Your task to perform on an android device: choose inbox layout in the gmail app Image 0: 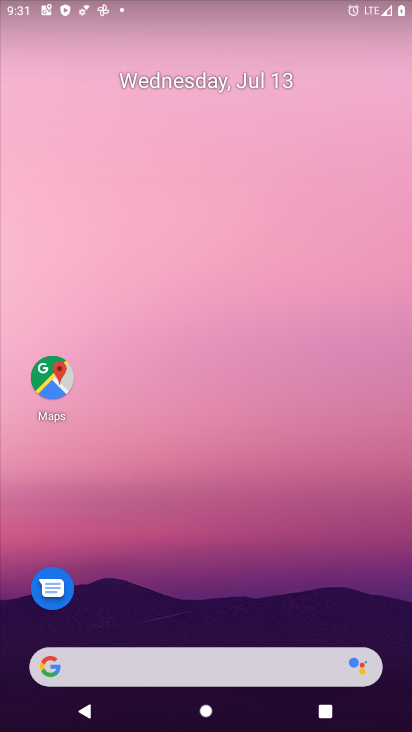
Step 0: drag from (260, 722) to (328, 463)
Your task to perform on an android device: choose inbox layout in the gmail app Image 1: 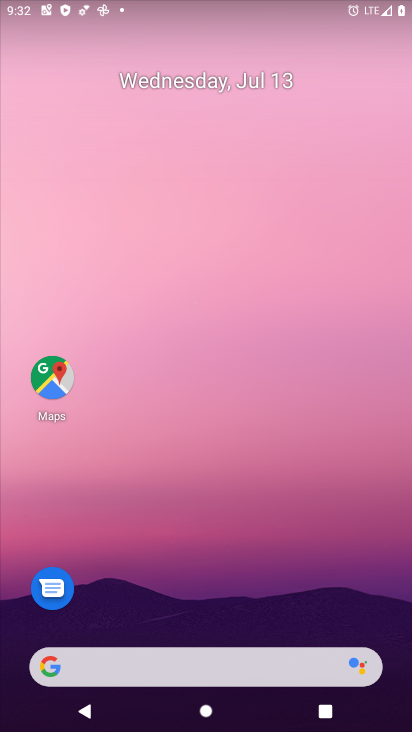
Step 1: drag from (286, 706) to (260, 17)
Your task to perform on an android device: choose inbox layout in the gmail app Image 2: 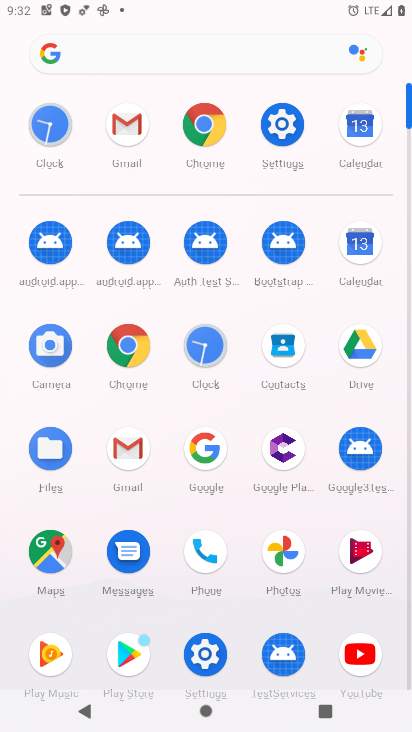
Step 2: click (133, 437)
Your task to perform on an android device: choose inbox layout in the gmail app Image 3: 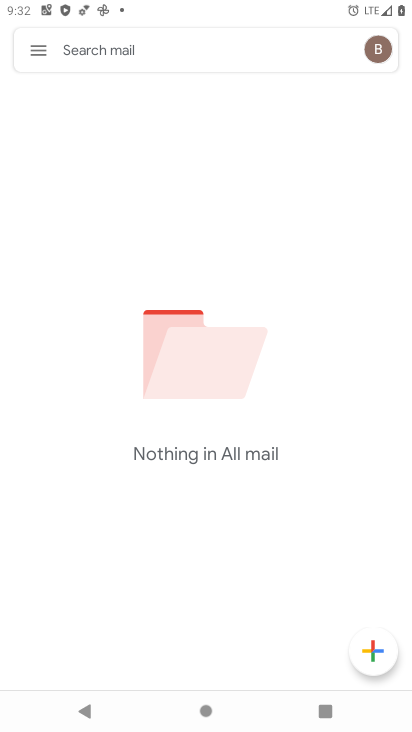
Step 3: click (36, 52)
Your task to perform on an android device: choose inbox layout in the gmail app Image 4: 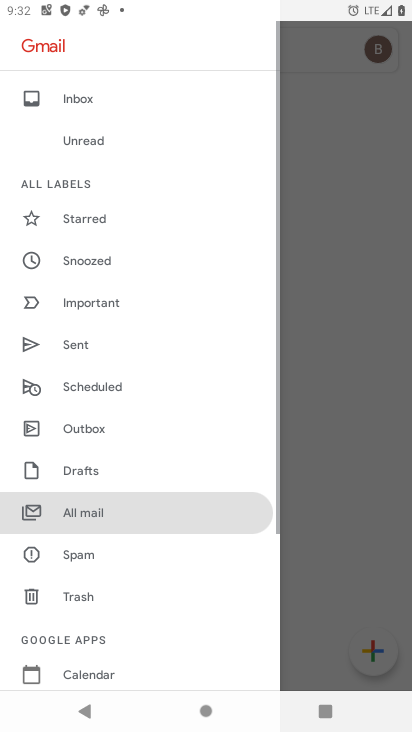
Step 4: drag from (122, 602) to (242, 0)
Your task to perform on an android device: choose inbox layout in the gmail app Image 5: 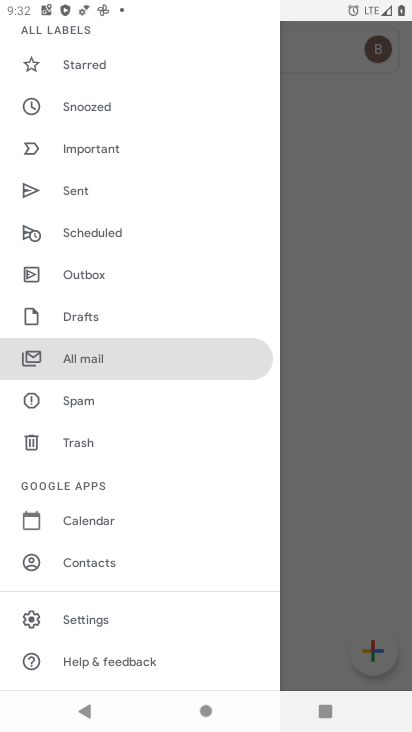
Step 5: click (110, 621)
Your task to perform on an android device: choose inbox layout in the gmail app Image 6: 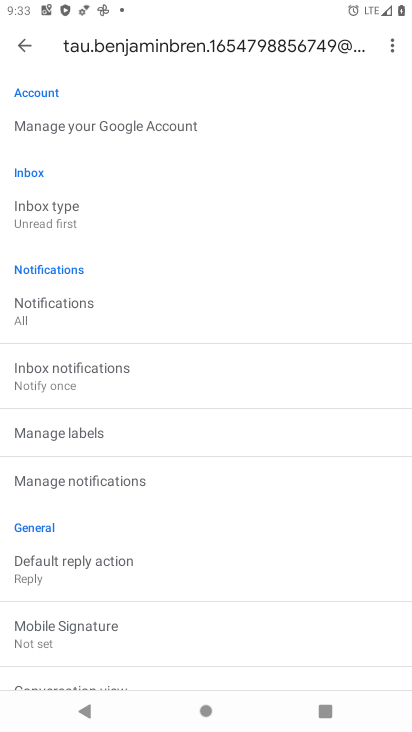
Step 6: click (58, 217)
Your task to perform on an android device: choose inbox layout in the gmail app Image 7: 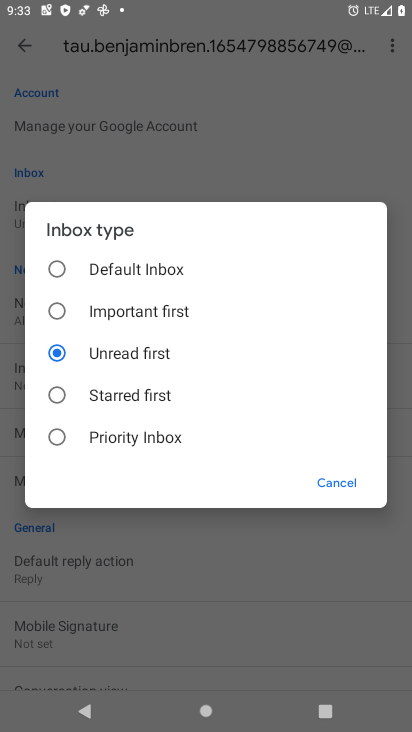
Step 7: click (157, 269)
Your task to perform on an android device: choose inbox layout in the gmail app Image 8: 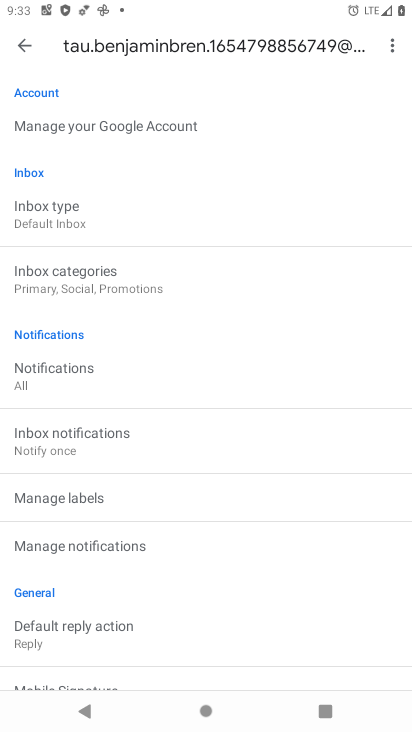
Step 8: task complete